Your task to perform on an android device: Go to settings Image 0: 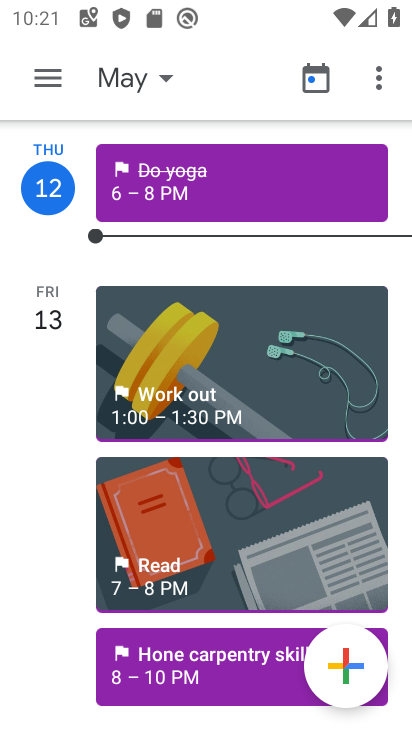
Step 0: press home button
Your task to perform on an android device: Go to settings Image 1: 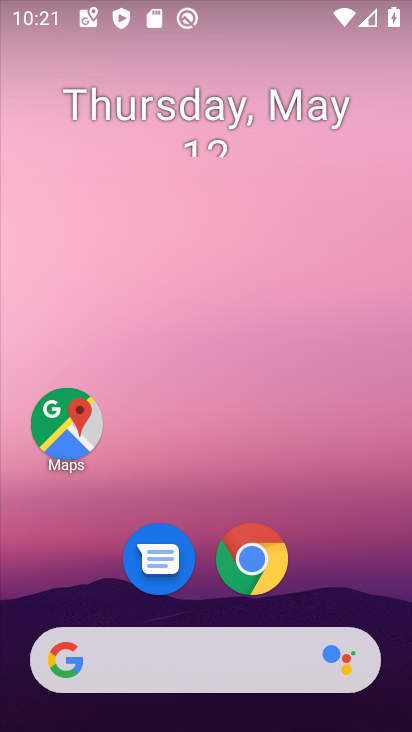
Step 1: drag from (200, 589) to (186, 241)
Your task to perform on an android device: Go to settings Image 2: 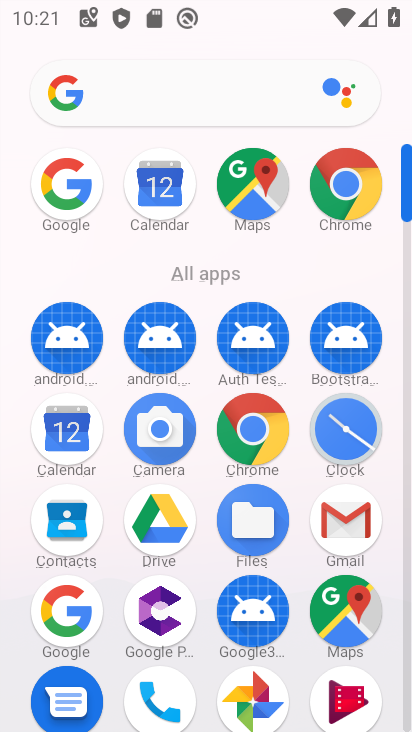
Step 2: drag from (217, 601) to (198, 343)
Your task to perform on an android device: Go to settings Image 3: 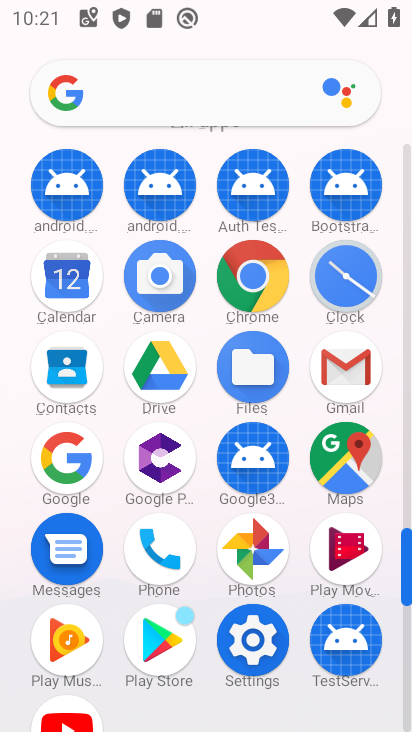
Step 3: click (249, 663)
Your task to perform on an android device: Go to settings Image 4: 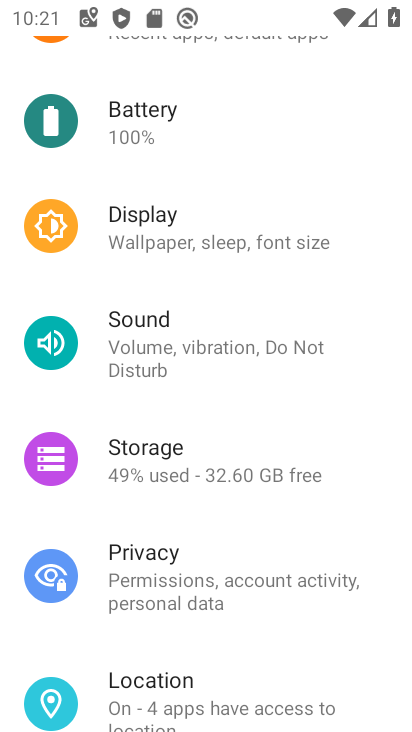
Step 4: task complete